Your task to perform on an android device: Go to notification settings Image 0: 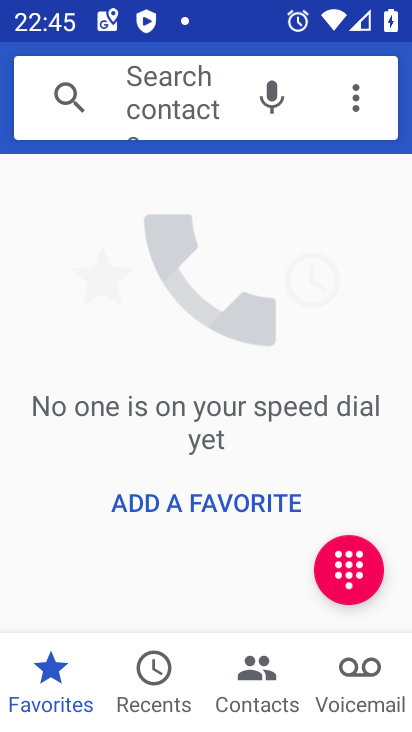
Step 0: press home button
Your task to perform on an android device: Go to notification settings Image 1: 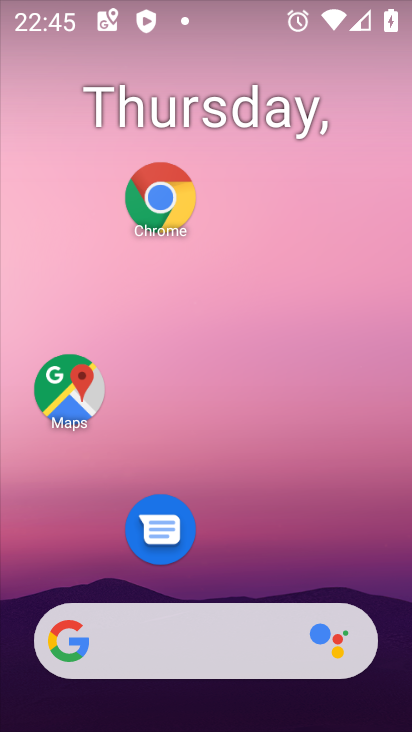
Step 1: drag from (273, 522) to (235, 6)
Your task to perform on an android device: Go to notification settings Image 2: 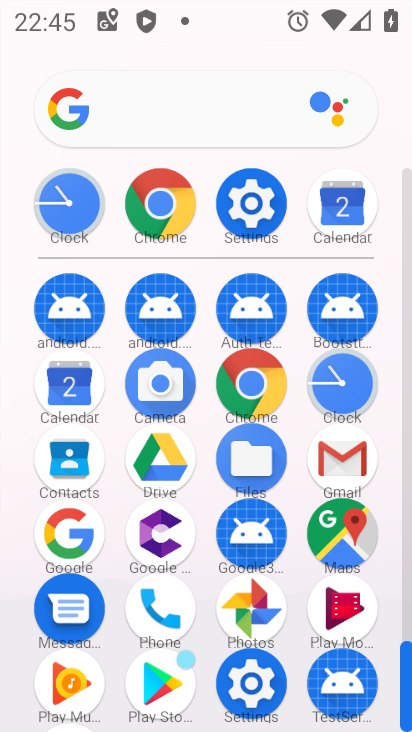
Step 2: click (250, 199)
Your task to perform on an android device: Go to notification settings Image 3: 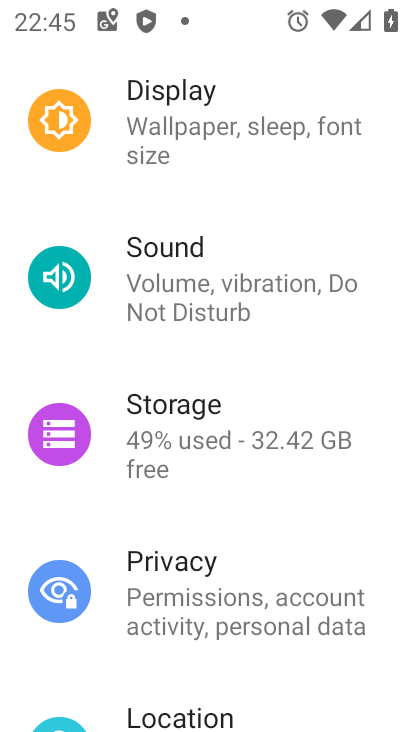
Step 3: drag from (229, 199) to (206, 680)
Your task to perform on an android device: Go to notification settings Image 4: 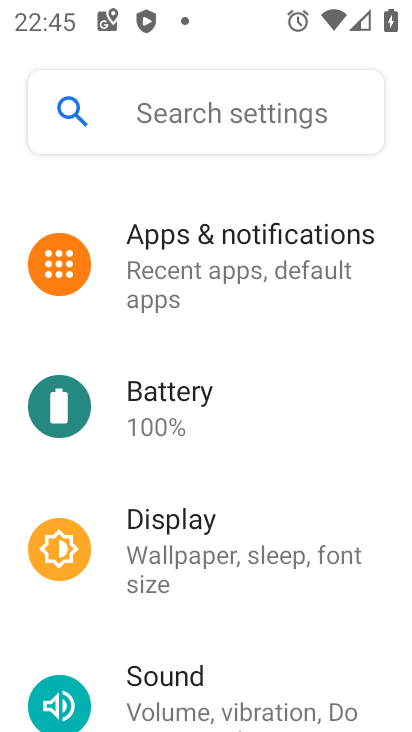
Step 4: click (256, 231)
Your task to perform on an android device: Go to notification settings Image 5: 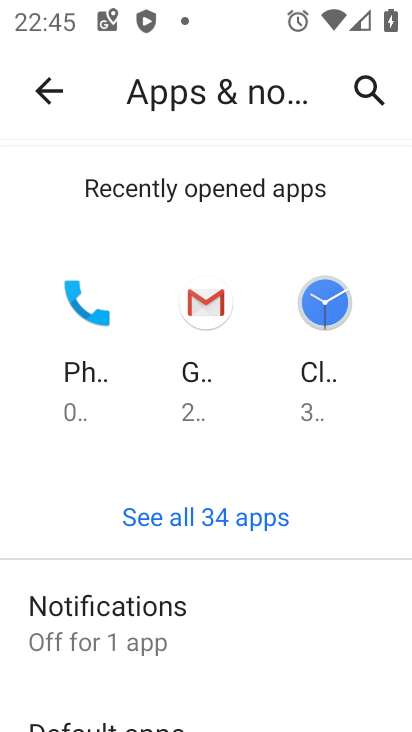
Step 5: task complete